Your task to perform on an android device: What's on my calendar tomorrow? Image 0: 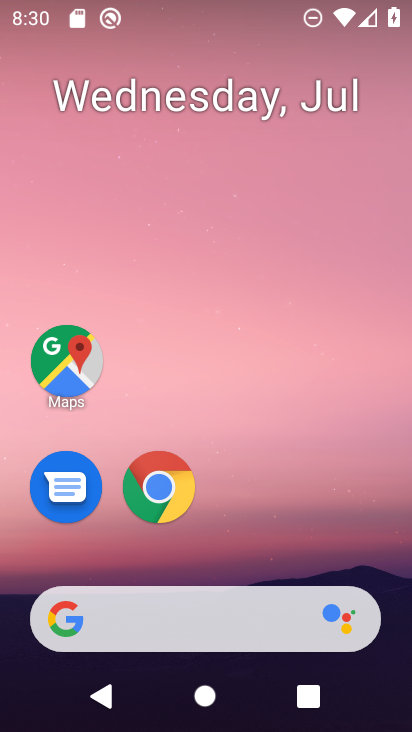
Step 0: drag from (336, 533) to (333, 119)
Your task to perform on an android device: What's on my calendar tomorrow? Image 1: 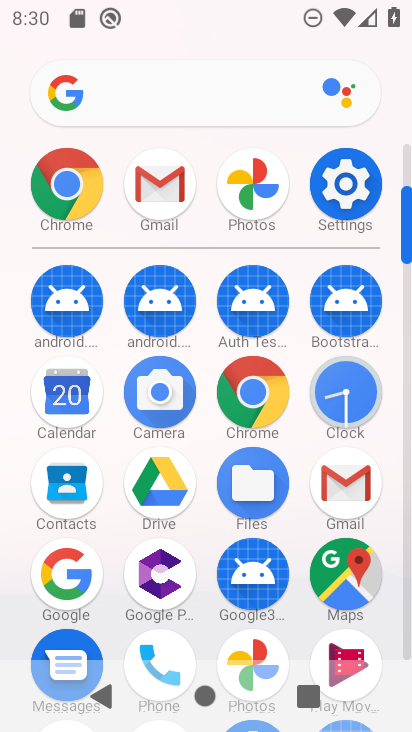
Step 1: click (74, 390)
Your task to perform on an android device: What's on my calendar tomorrow? Image 2: 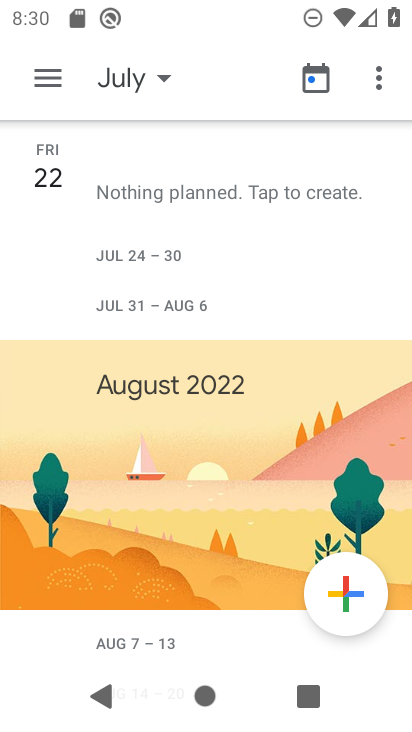
Step 2: click (167, 77)
Your task to perform on an android device: What's on my calendar tomorrow? Image 3: 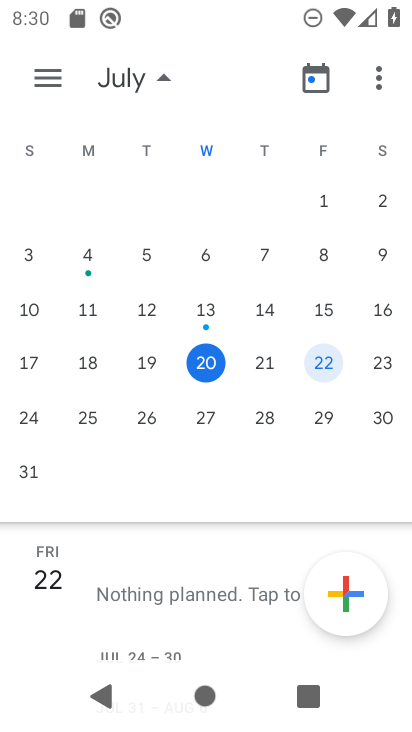
Step 3: click (316, 360)
Your task to perform on an android device: What's on my calendar tomorrow? Image 4: 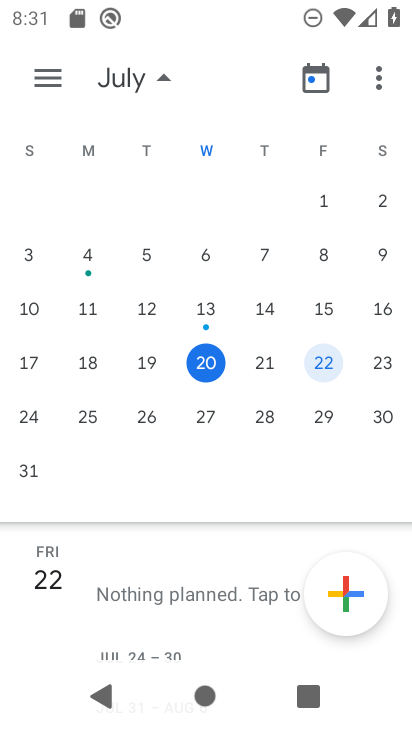
Step 4: task complete